Your task to perform on an android device: turn off airplane mode Image 0: 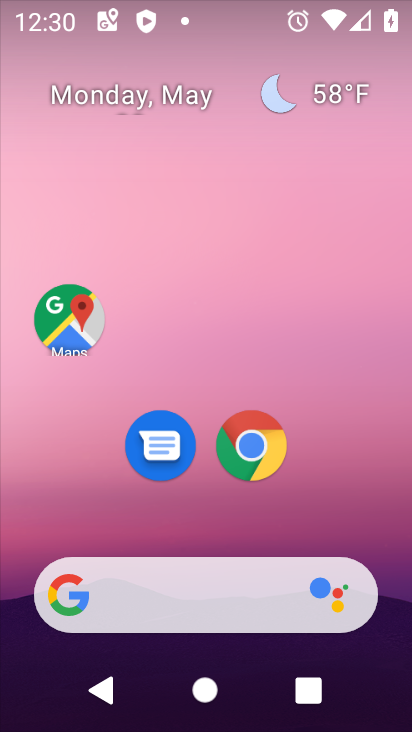
Step 0: press home button
Your task to perform on an android device: turn off airplane mode Image 1: 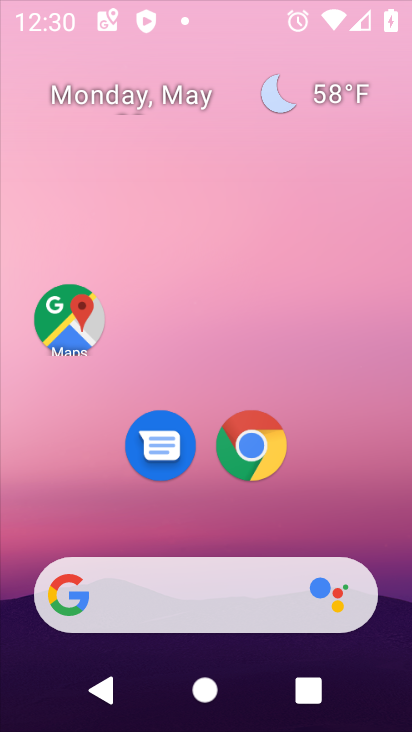
Step 1: click (250, 432)
Your task to perform on an android device: turn off airplane mode Image 2: 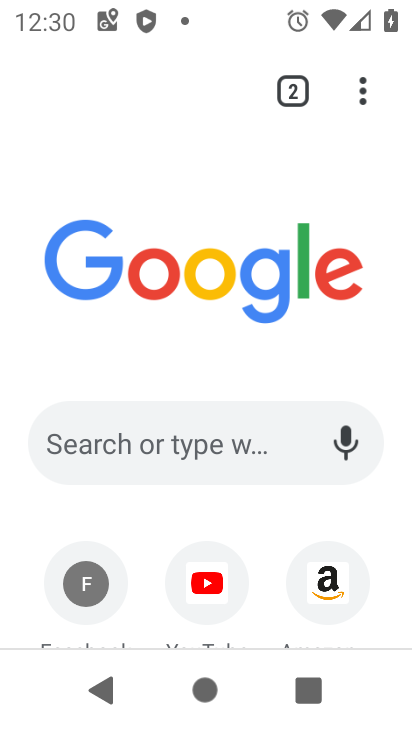
Step 2: drag from (254, 529) to (280, 171)
Your task to perform on an android device: turn off airplane mode Image 3: 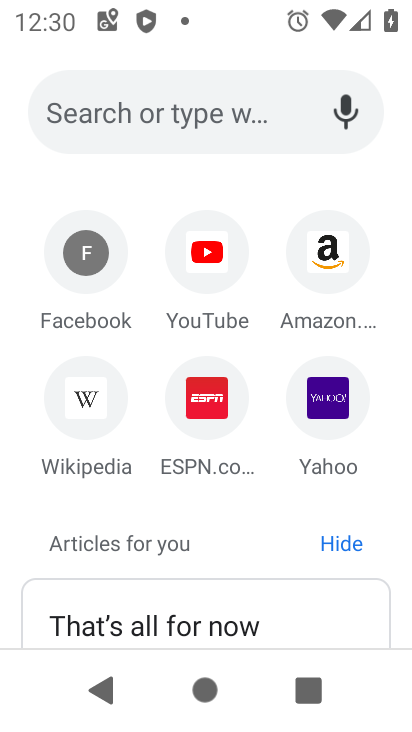
Step 3: click (126, 113)
Your task to perform on an android device: turn off airplane mode Image 4: 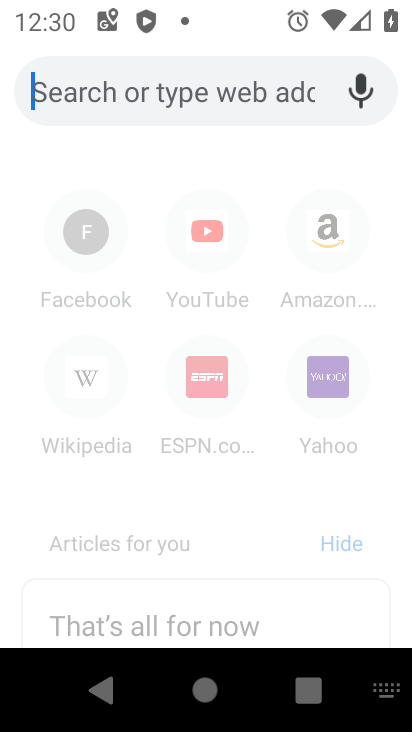
Step 4: type "ebay"
Your task to perform on an android device: turn off airplane mode Image 5: 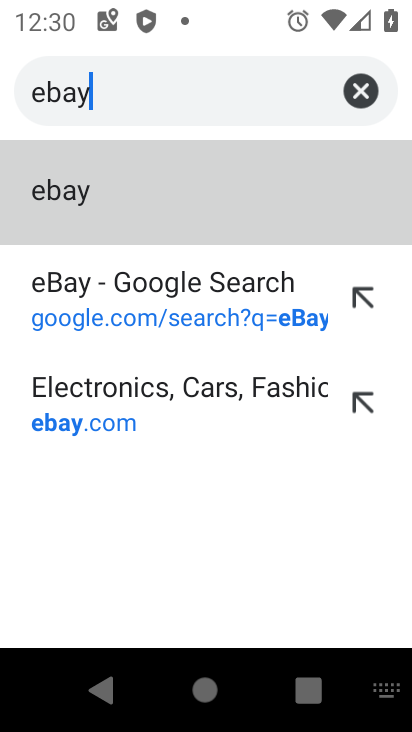
Step 5: task complete